Your task to perform on an android device: turn on notifications settings in the gmail app Image 0: 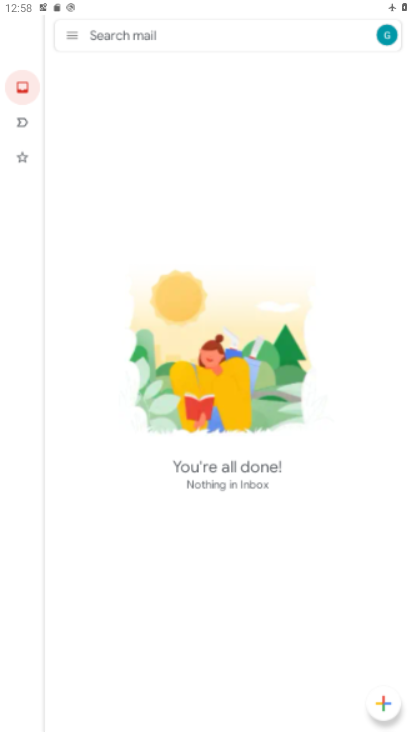
Step 0: press home button
Your task to perform on an android device: turn on notifications settings in the gmail app Image 1: 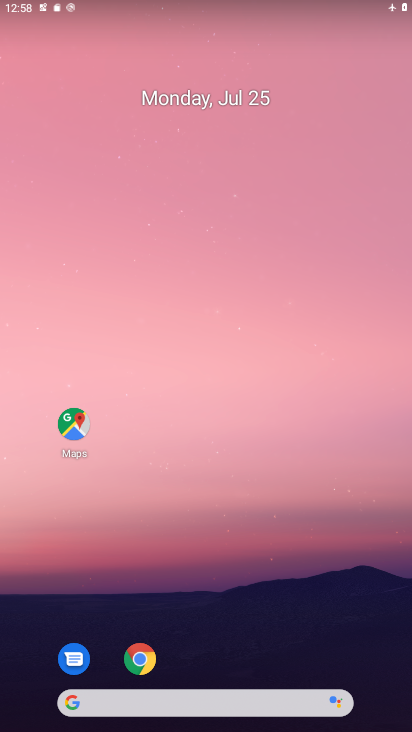
Step 1: drag from (235, 676) to (280, 451)
Your task to perform on an android device: turn on notifications settings in the gmail app Image 2: 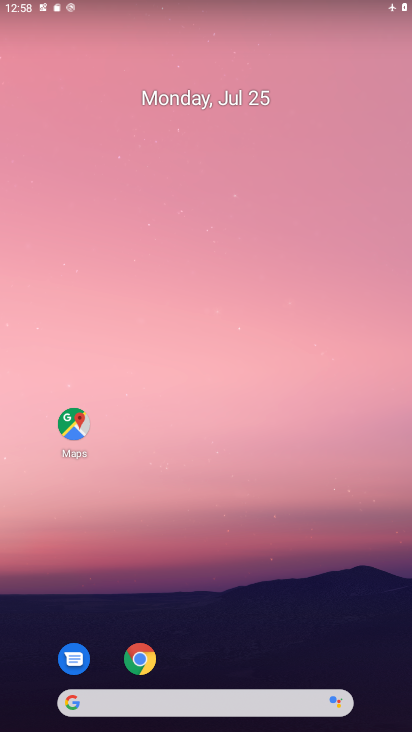
Step 2: drag from (218, 656) to (216, 255)
Your task to perform on an android device: turn on notifications settings in the gmail app Image 3: 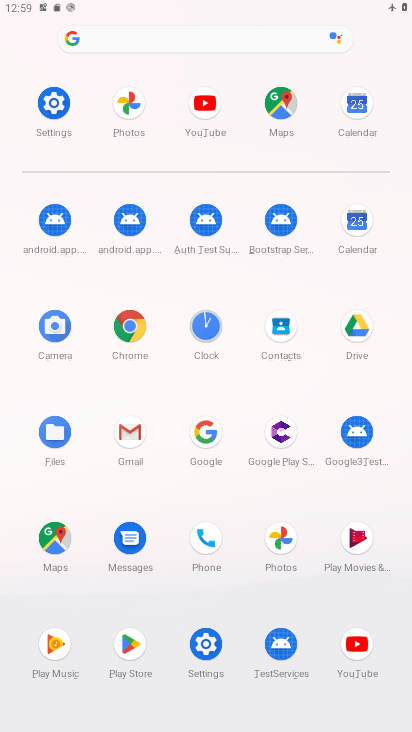
Step 3: click (126, 431)
Your task to perform on an android device: turn on notifications settings in the gmail app Image 4: 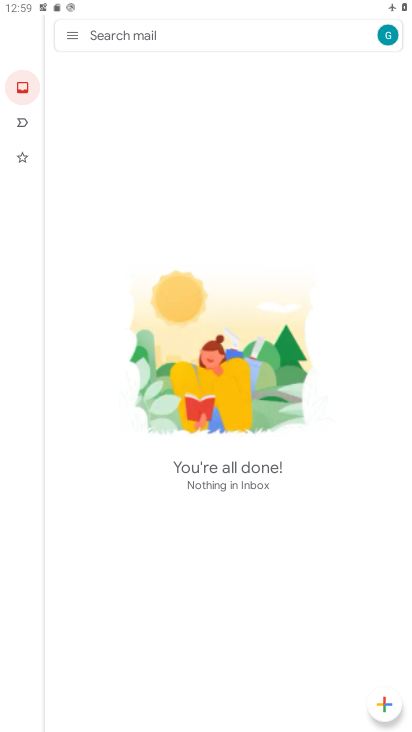
Step 4: click (70, 32)
Your task to perform on an android device: turn on notifications settings in the gmail app Image 5: 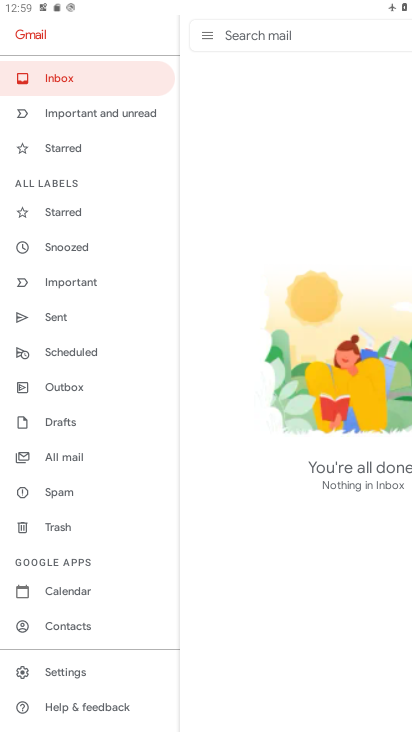
Step 5: click (80, 679)
Your task to perform on an android device: turn on notifications settings in the gmail app Image 6: 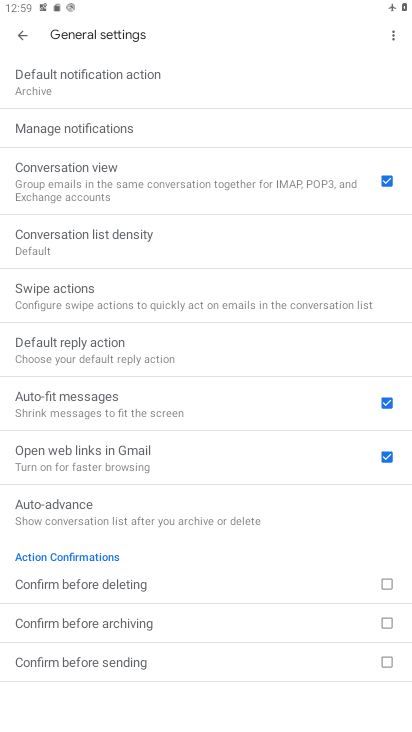
Step 6: click (124, 135)
Your task to perform on an android device: turn on notifications settings in the gmail app Image 7: 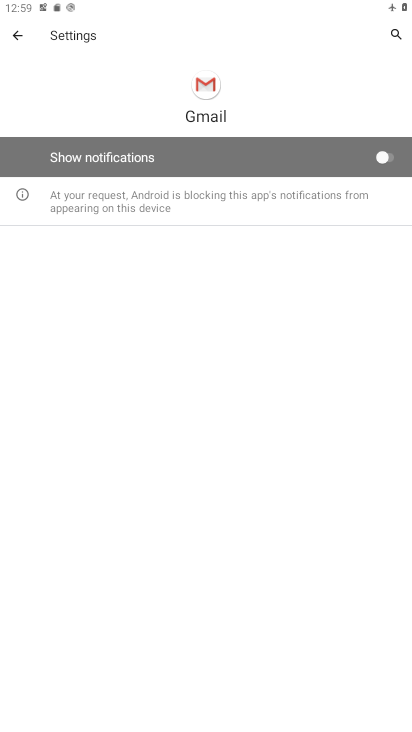
Step 7: click (394, 160)
Your task to perform on an android device: turn on notifications settings in the gmail app Image 8: 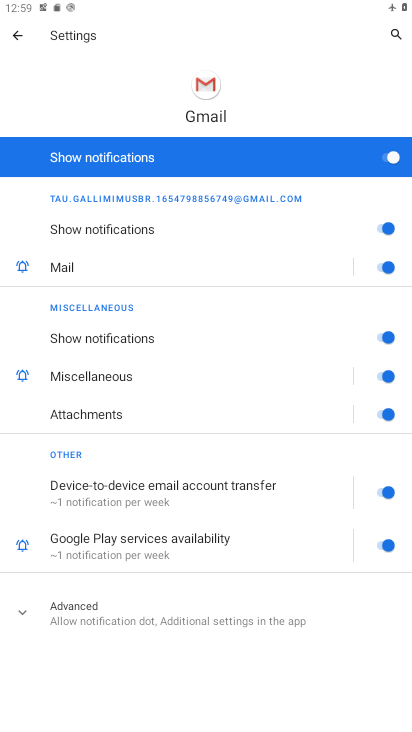
Step 8: task complete